Your task to perform on an android device: add a contact in the contacts app Image 0: 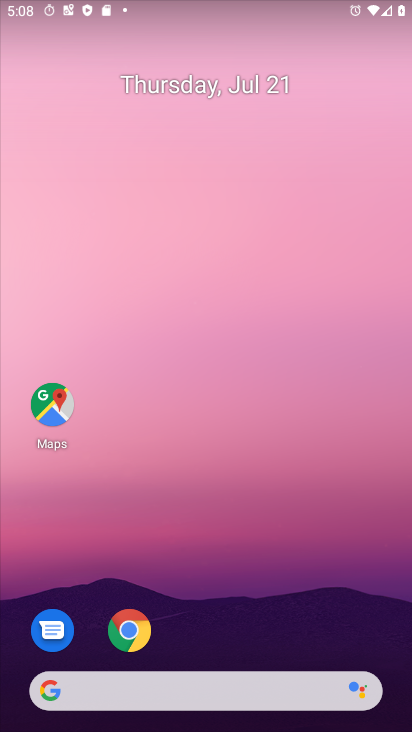
Step 0: drag from (179, 681) to (260, 123)
Your task to perform on an android device: add a contact in the contacts app Image 1: 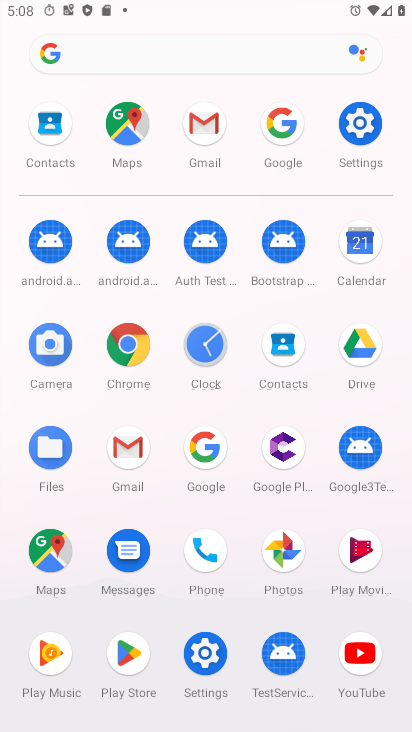
Step 1: click (284, 342)
Your task to perform on an android device: add a contact in the contacts app Image 2: 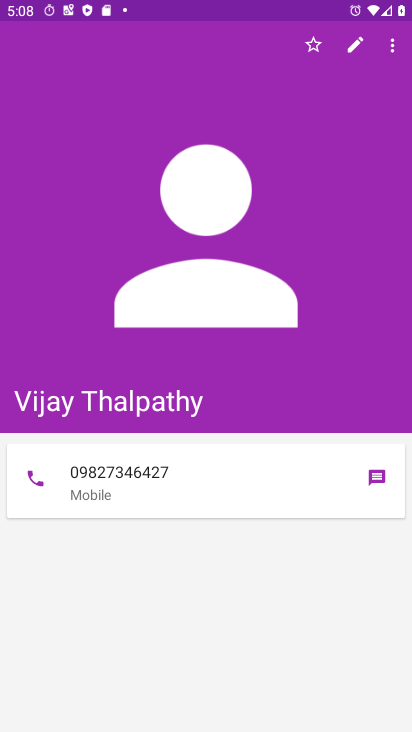
Step 2: press back button
Your task to perform on an android device: add a contact in the contacts app Image 3: 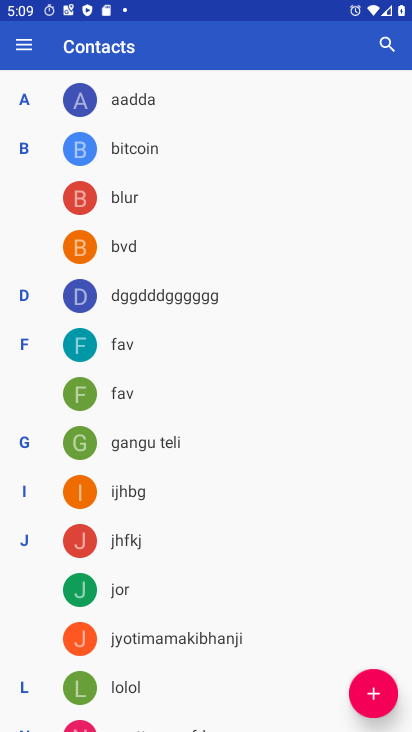
Step 3: click (374, 696)
Your task to perform on an android device: add a contact in the contacts app Image 4: 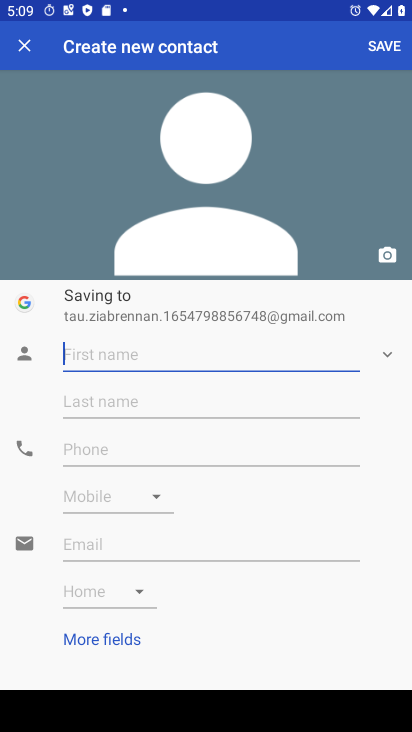
Step 4: type "Akhilesh Pratap"
Your task to perform on an android device: add a contact in the contacts app Image 5: 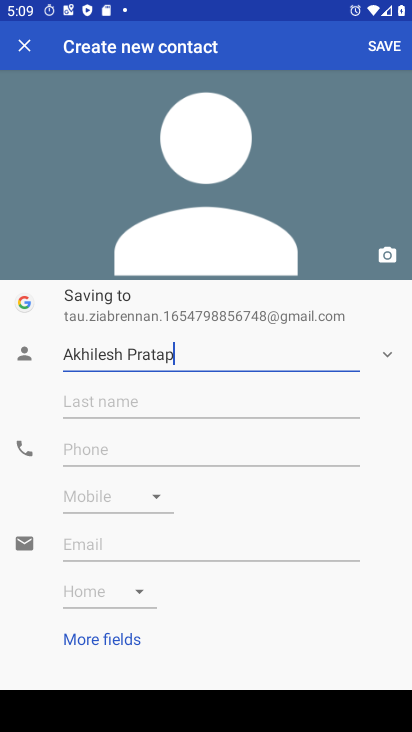
Step 5: click (154, 404)
Your task to perform on an android device: add a contact in the contacts app Image 6: 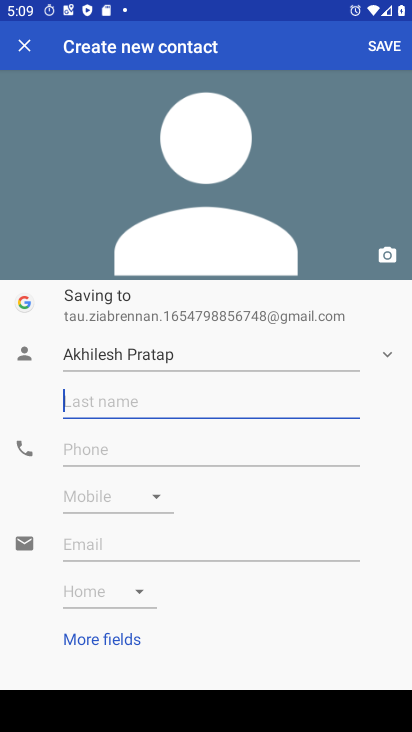
Step 6: type "Shahi"
Your task to perform on an android device: add a contact in the contacts app Image 7: 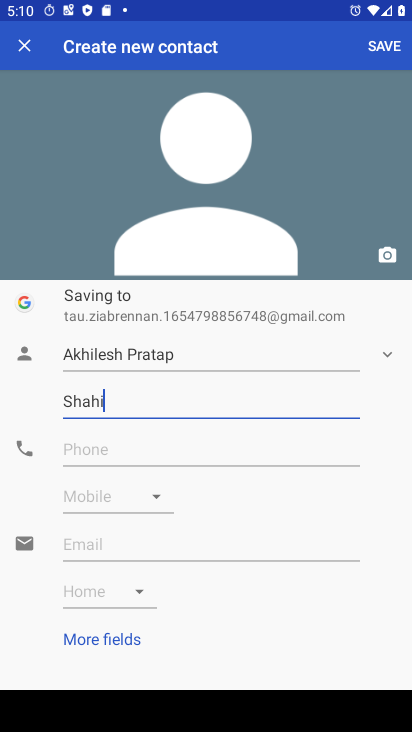
Step 7: click (224, 448)
Your task to perform on an android device: add a contact in the contacts app Image 8: 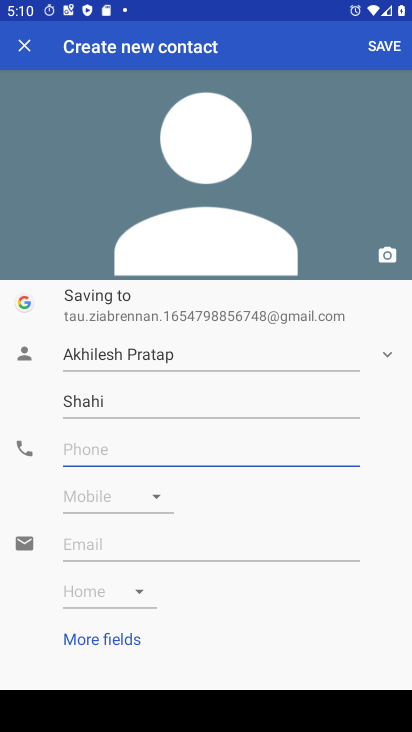
Step 8: type "09988776655"
Your task to perform on an android device: add a contact in the contacts app Image 9: 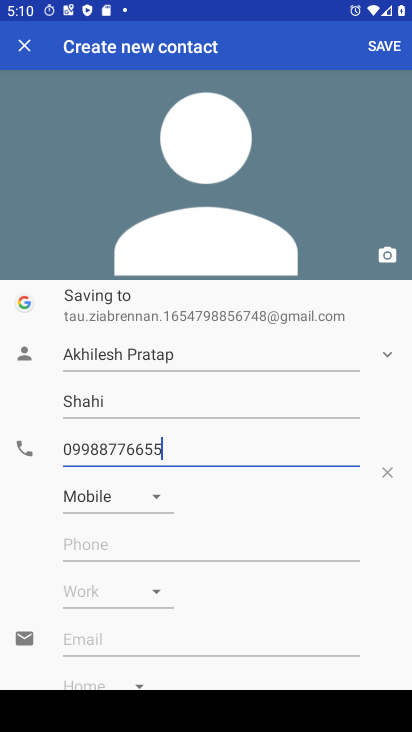
Step 9: click (377, 44)
Your task to perform on an android device: add a contact in the contacts app Image 10: 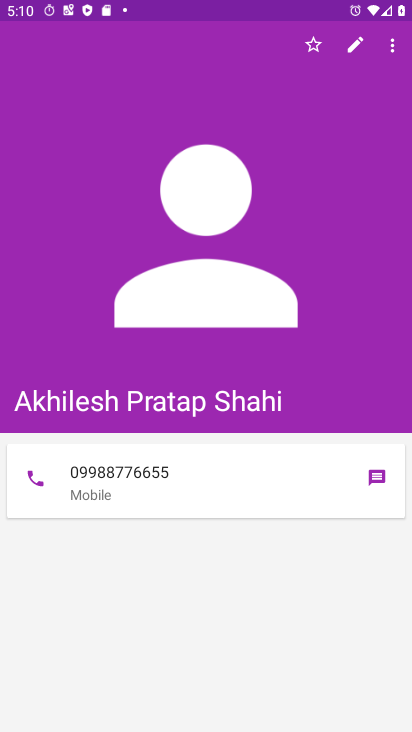
Step 10: task complete